Your task to perform on an android device: Open Google Chrome Image 0: 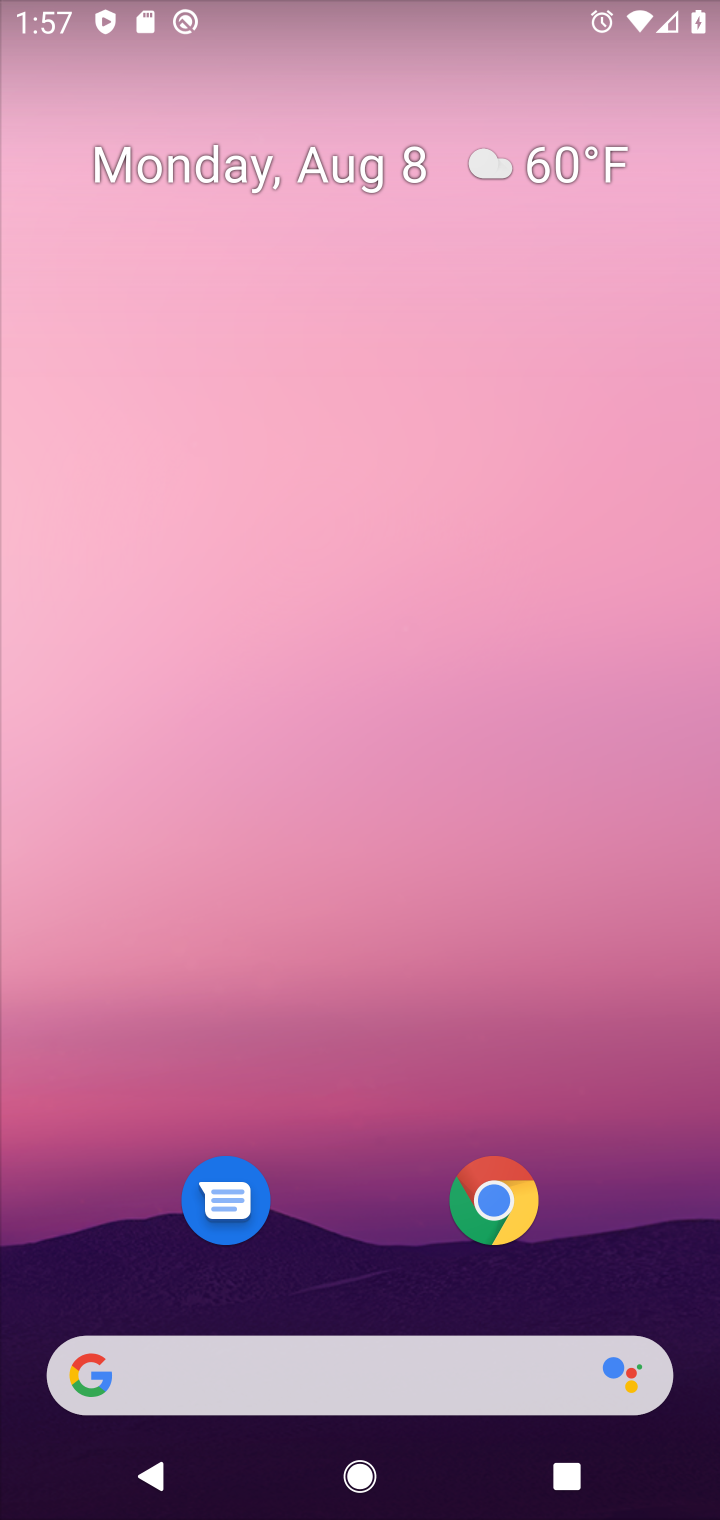
Step 0: press home button
Your task to perform on an android device: Open Google Chrome Image 1: 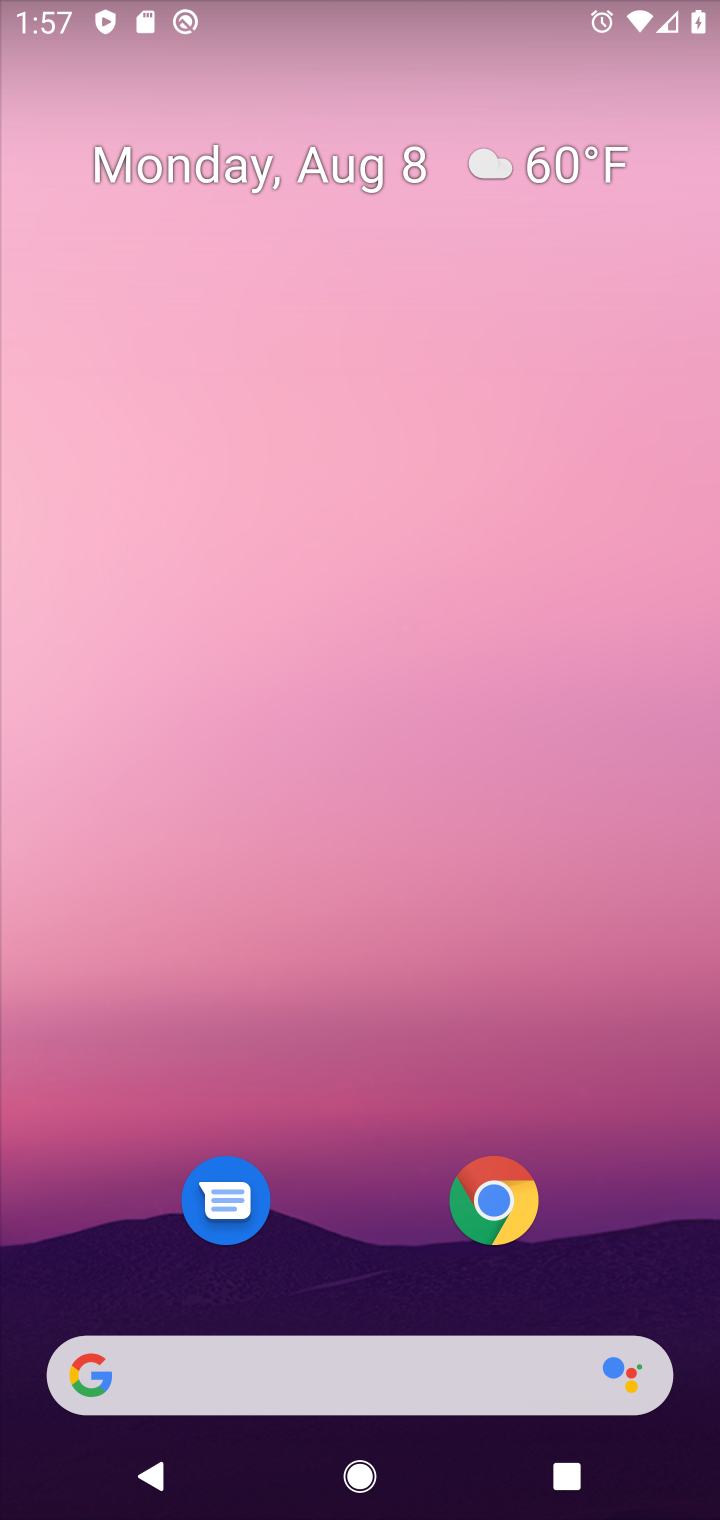
Step 1: click (485, 1189)
Your task to perform on an android device: Open Google Chrome Image 2: 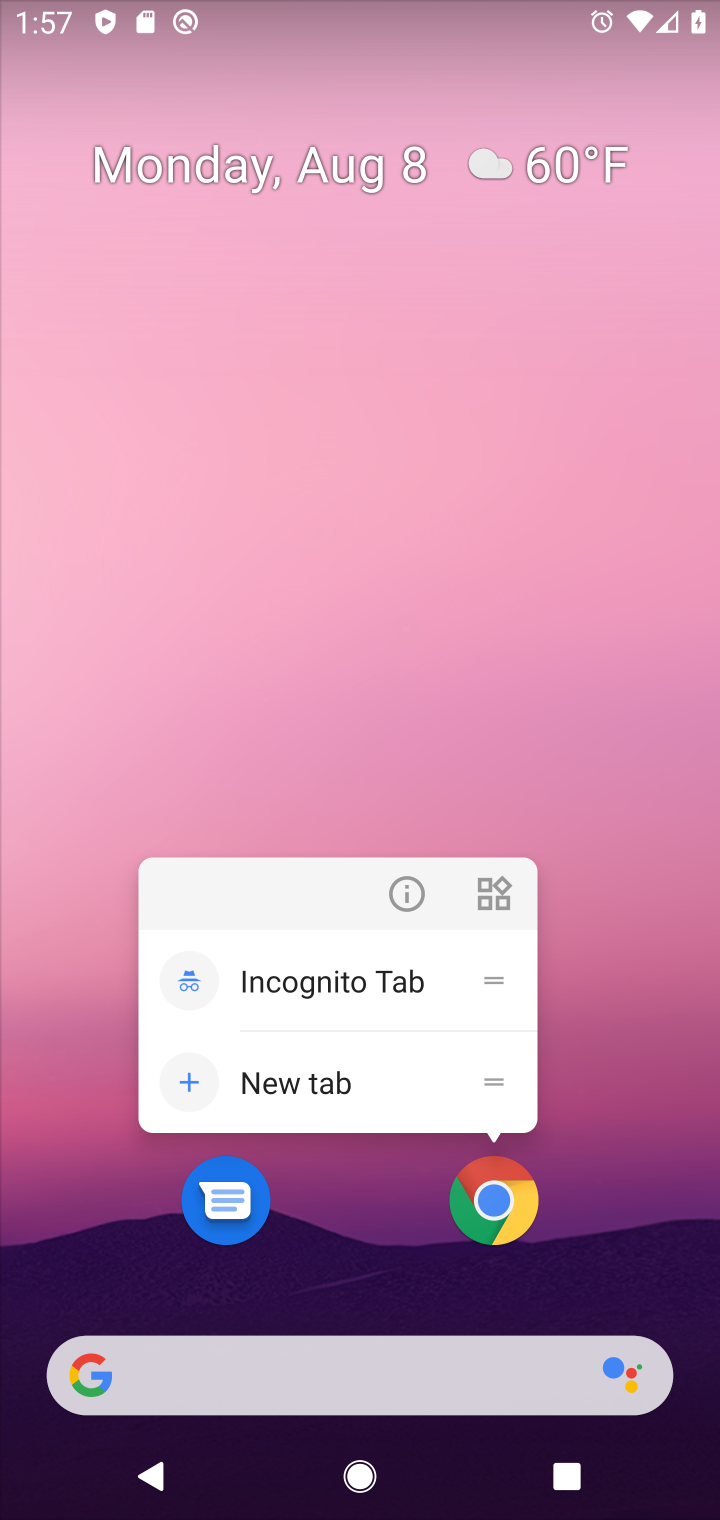
Step 2: click (498, 1193)
Your task to perform on an android device: Open Google Chrome Image 3: 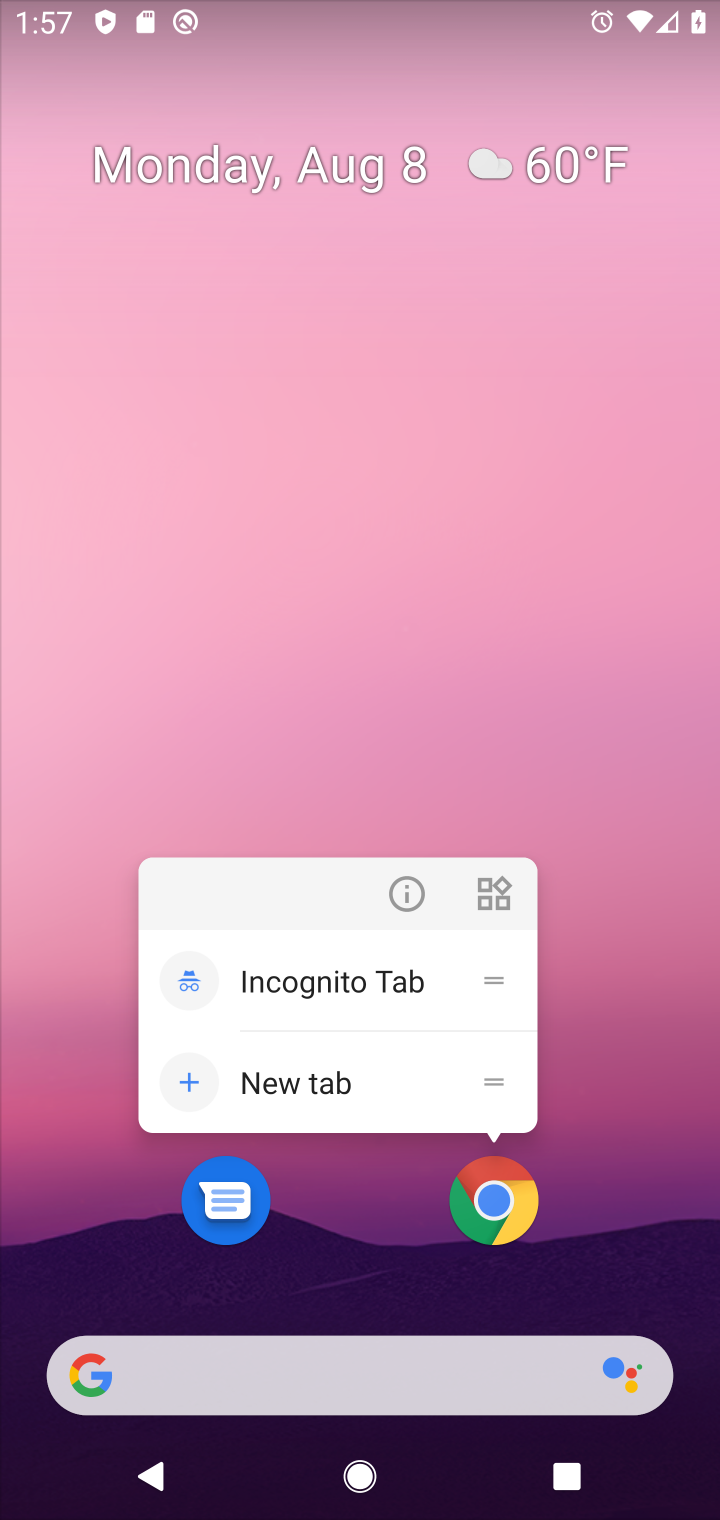
Step 3: click (409, 1310)
Your task to perform on an android device: Open Google Chrome Image 4: 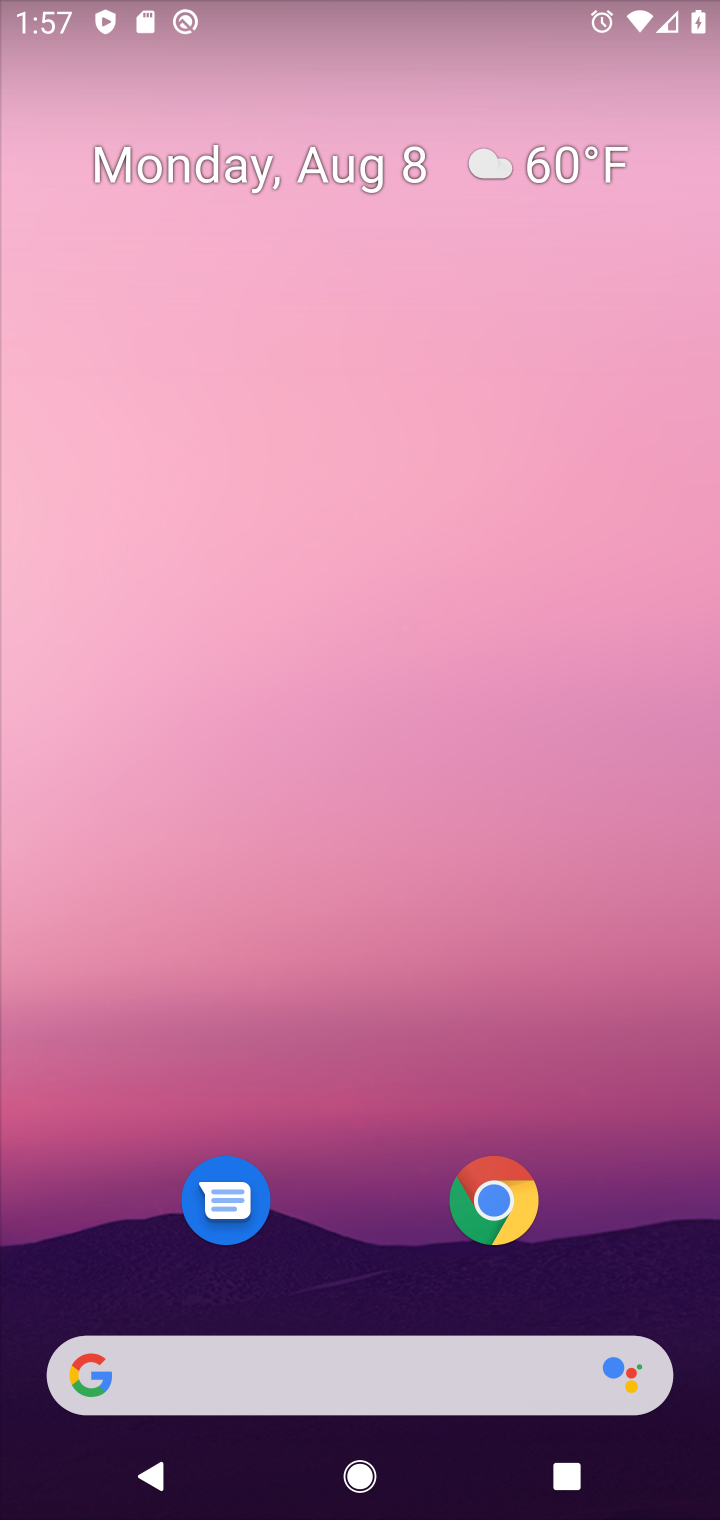
Step 4: drag from (570, 1316) to (643, 213)
Your task to perform on an android device: Open Google Chrome Image 5: 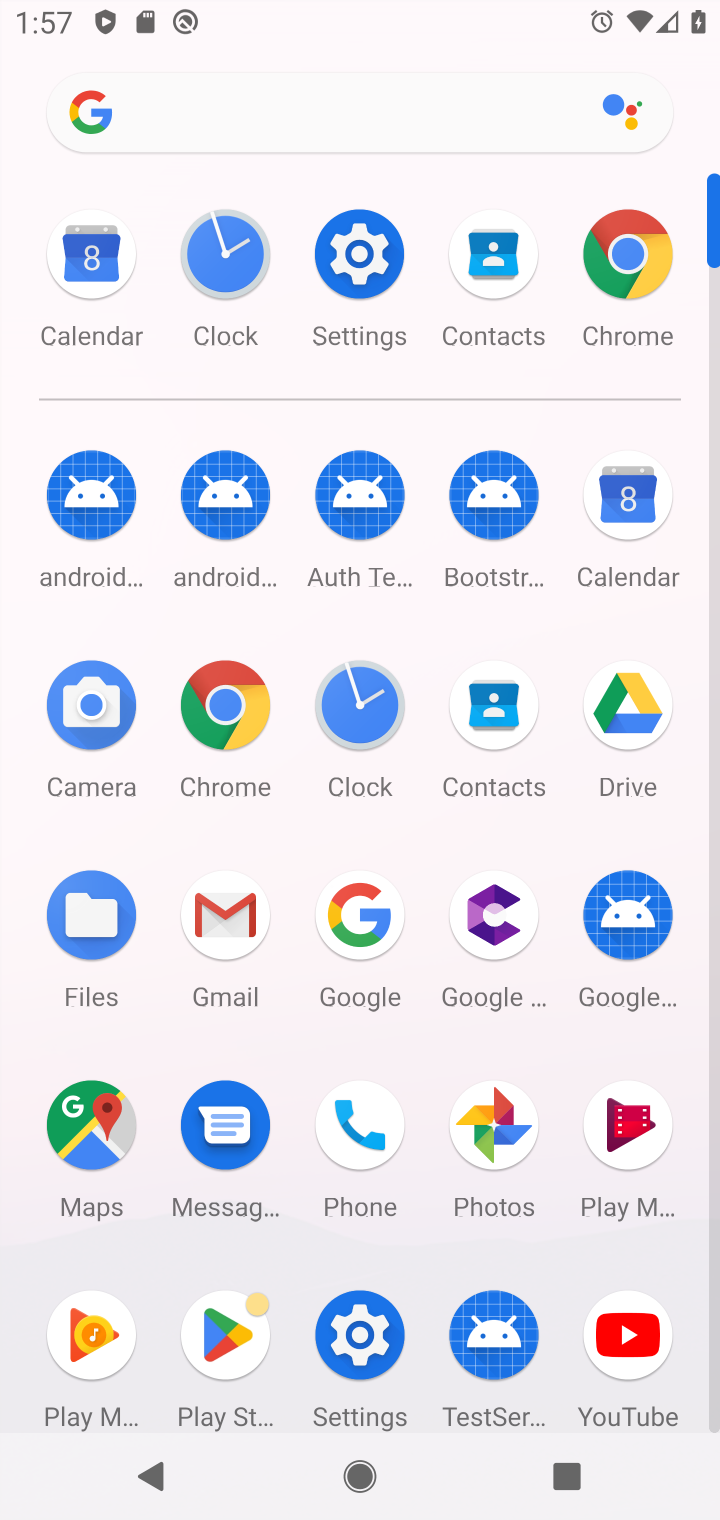
Step 5: click (221, 698)
Your task to perform on an android device: Open Google Chrome Image 6: 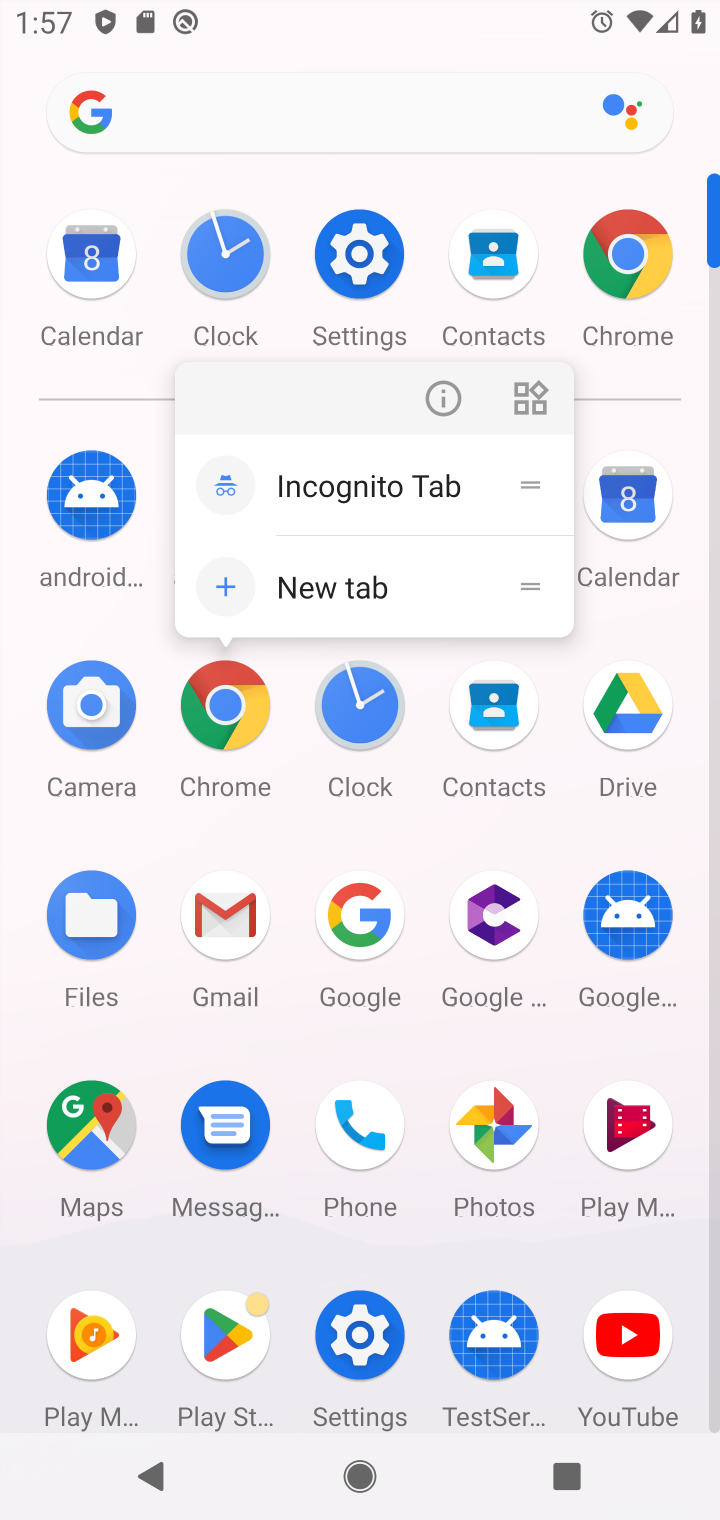
Step 6: click (229, 700)
Your task to perform on an android device: Open Google Chrome Image 7: 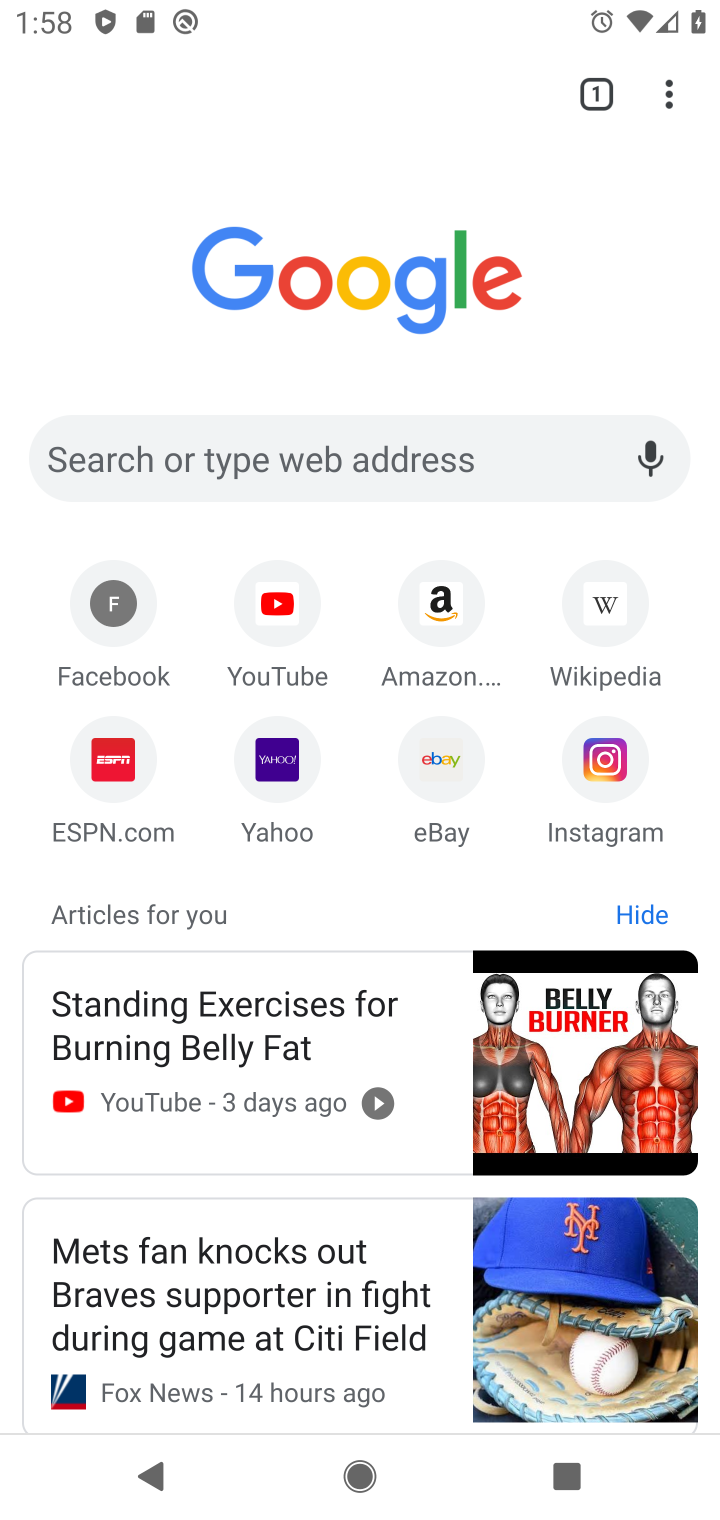
Step 7: task complete